Your task to perform on an android device: turn off improve location accuracy Image 0: 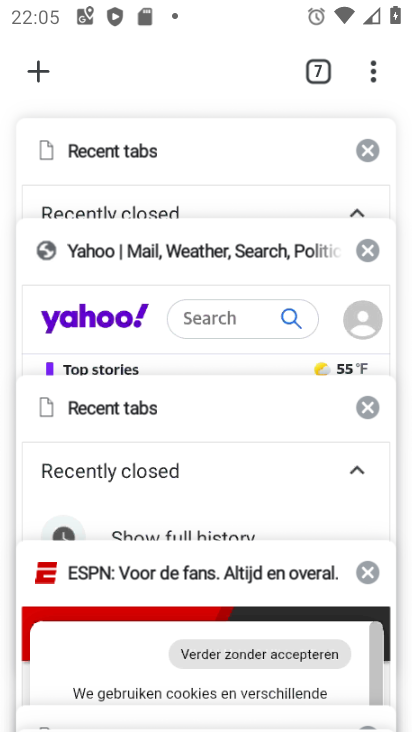
Step 0: press home button
Your task to perform on an android device: turn off improve location accuracy Image 1: 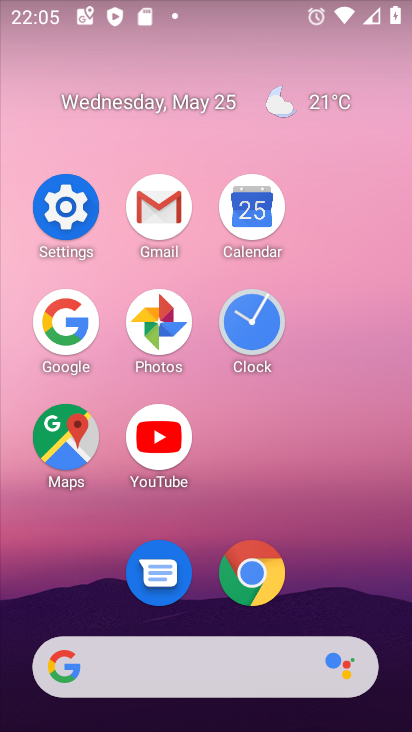
Step 1: click (64, 208)
Your task to perform on an android device: turn off improve location accuracy Image 2: 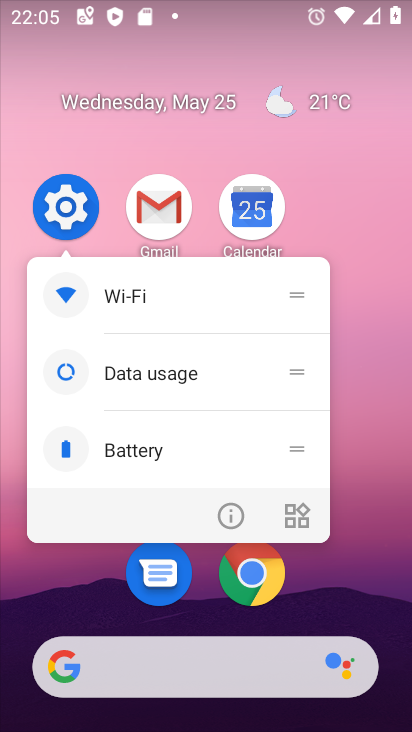
Step 2: click (48, 201)
Your task to perform on an android device: turn off improve location accuracy Image 3: 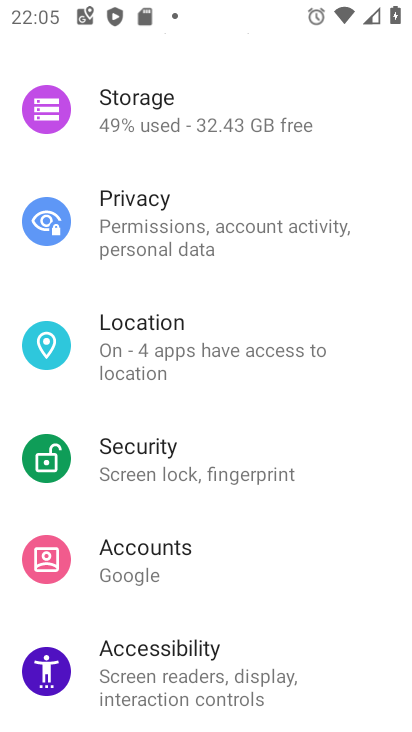
Step 3: click (198, 338)
Your task to perform on an android device: turn off improve location accuracy Image 4: 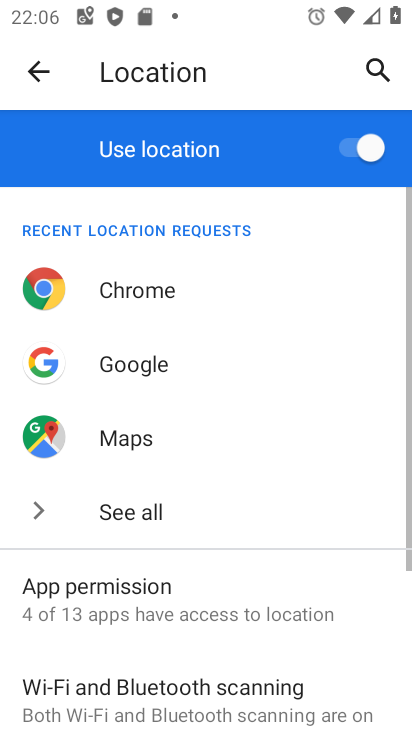
Step 4: drag from (283, 557) to (249, 214)
Your task to perform on an android device: turn off improve location accuracy Image 5: 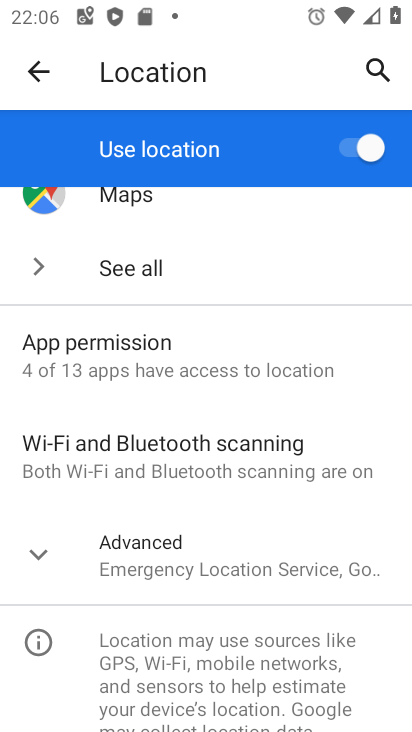
Step 5: click (167, 558)
Your task to perform on an android device: turn off improve location accuracy Image 6: 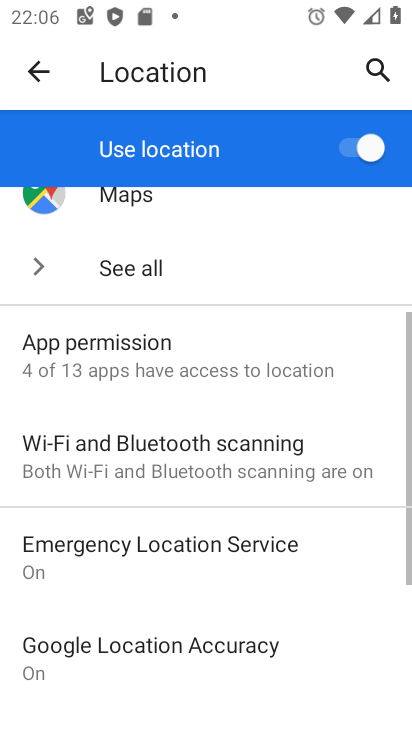
Step 6: drag from (167, 557) to (158, 220)
Your task to perform on an android device: turn off improve location accuracy Image 7: 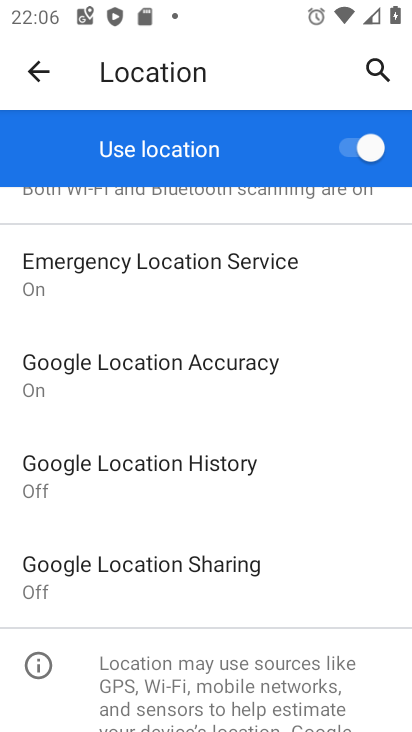
Step 7: click (218, 364)
Your task to perform on an android device: turn off improve location accuracy Image 8: 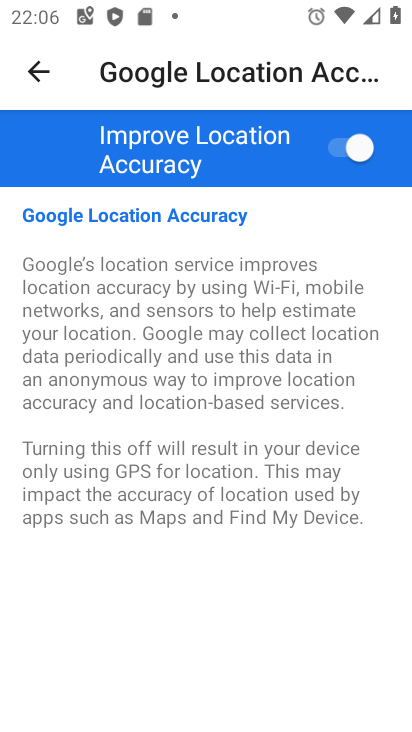
Step 8: click (334, 159)
Your task to perform on an android device: turn off improve location accuracy Image 9: 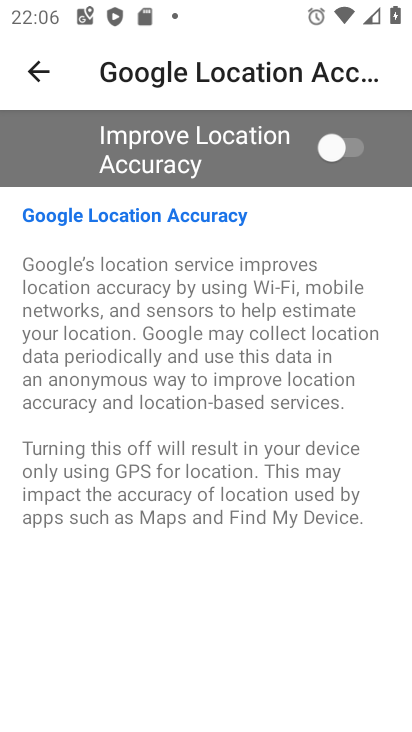
Step 9: task complete